Your task to perform on an android device: toggle data saver in the chrome app Image 0: 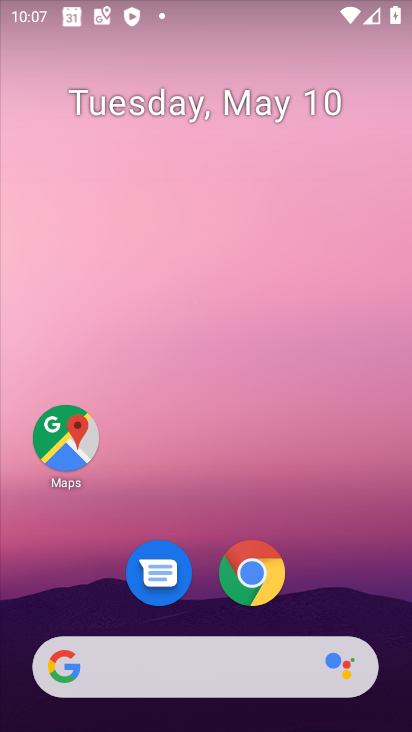
Step 0: click (248, 577)
Your task to perform on an android device: toggle data saver in the chrome app Image 1: 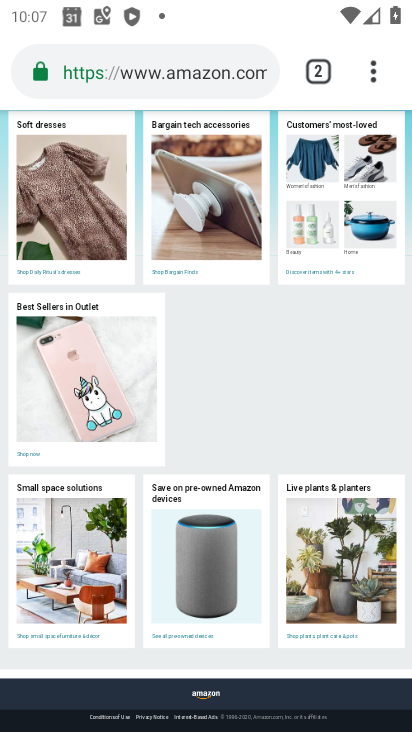
Step 1: click (375, 73)
Your task to perform on an android device: toggle data saver in the chrome app Image 2: 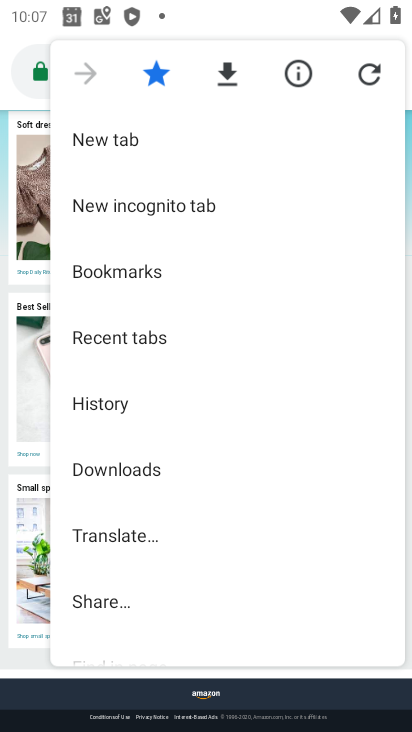
Step 2: drag from (189, 546) to (112, 245)
Your task to perform on an android device: toggle data saver in the chrome app Image 3: 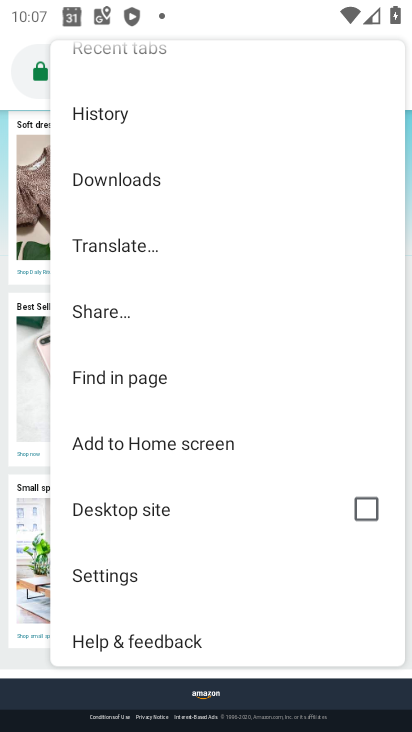
Step 3: click (107, 573)
Your task to perform on an android device: toggle data saver in the chrome app Image 4: 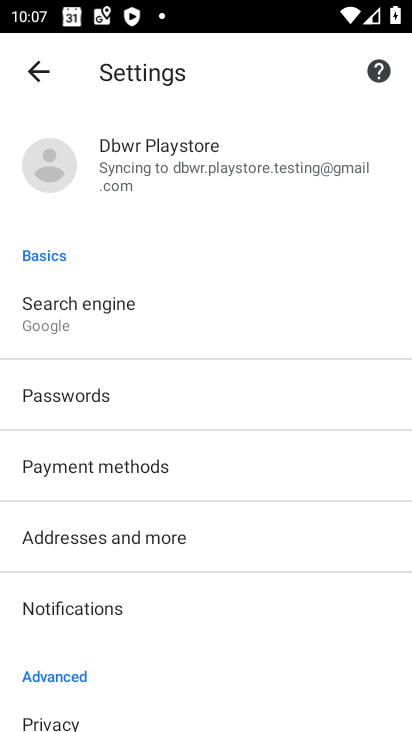
Step 4: drag from (179, 468) to (98, 93)
Your task to perform on an android device: toggle data saver in the chrome app Image 5: 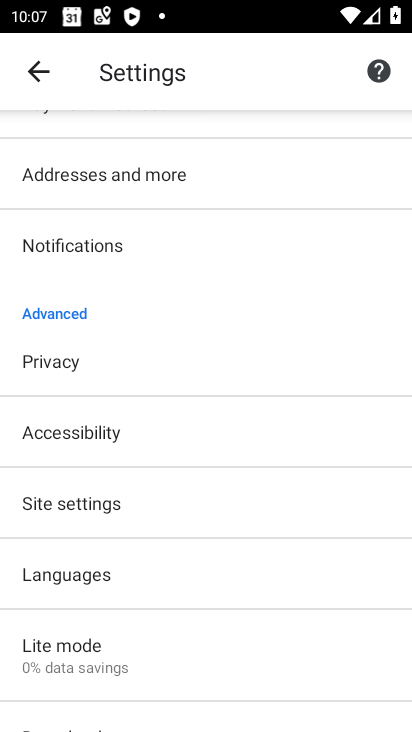
Step 5: click (78, 637)
Your task to perform on an android device: toggle data saver in the chrome app Image 6: 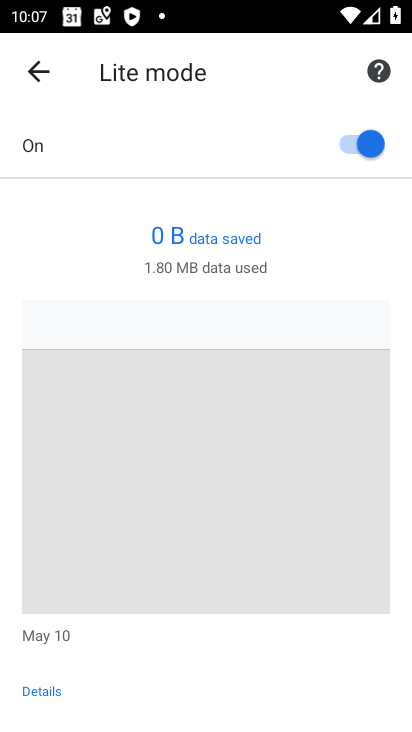
Step 6: click (373, 147)
Your task to perform on an android device: toggle data saver in the chrome app Image 7: 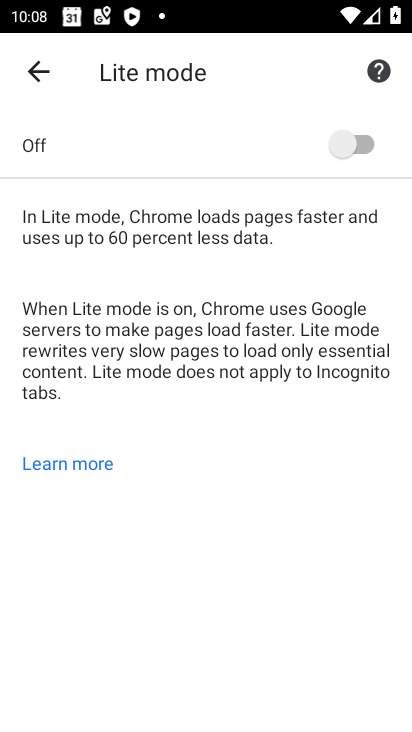
Step 7: task complete